Your task to perform on an android device: Open ESPN.com Image 0: 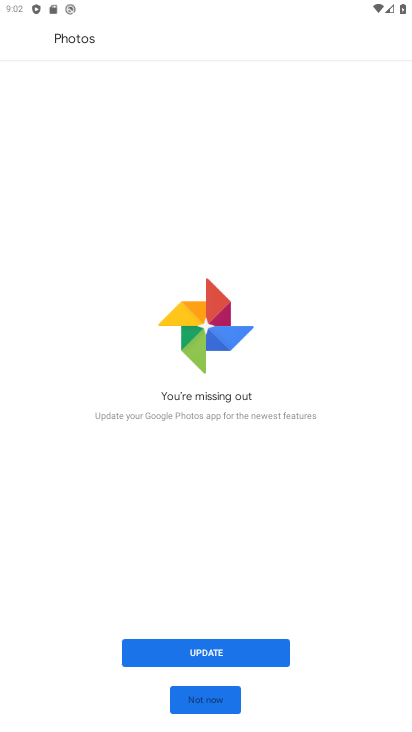
Step 0: press home button
Your task to perform on an android device: Open ESPN.com Image 1: 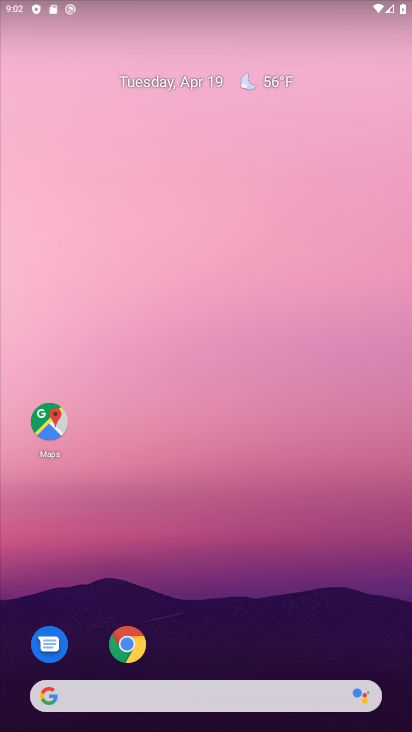
Step 1: click (174, 689)
Your task to perform on an android device: Open ESPN.com Image 2: 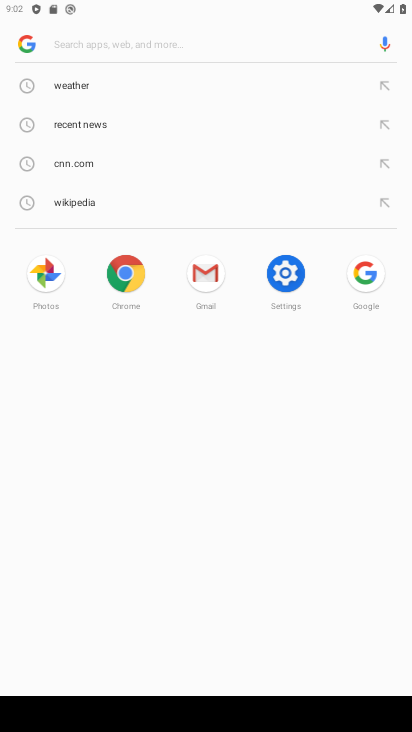
Step 2: type "ESPN.com"
Your task to perform on an android device: Open ESPN.com Image 3: 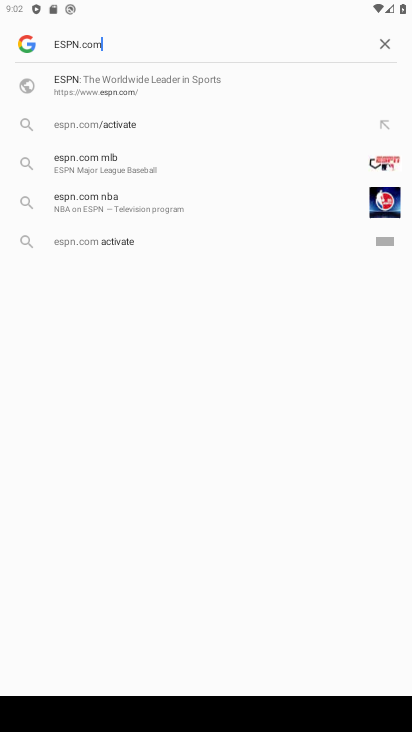
Step 3: click (138, 90)
Your task to perform on an android device: Open ESPN.com Image 4: 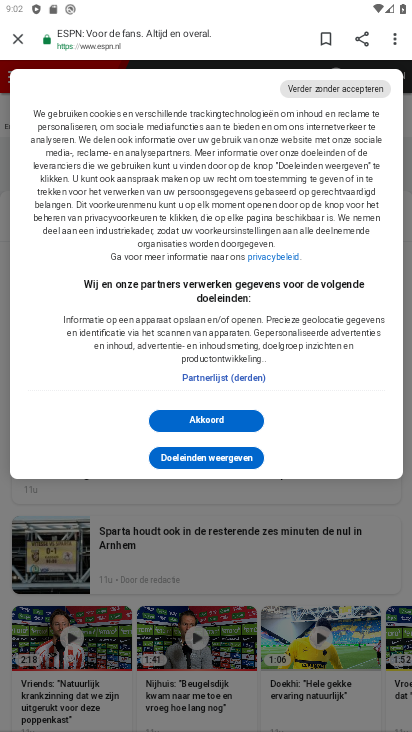
Step 4: task complete